Your task to perform on an android device: change text size in settings app Image 0: 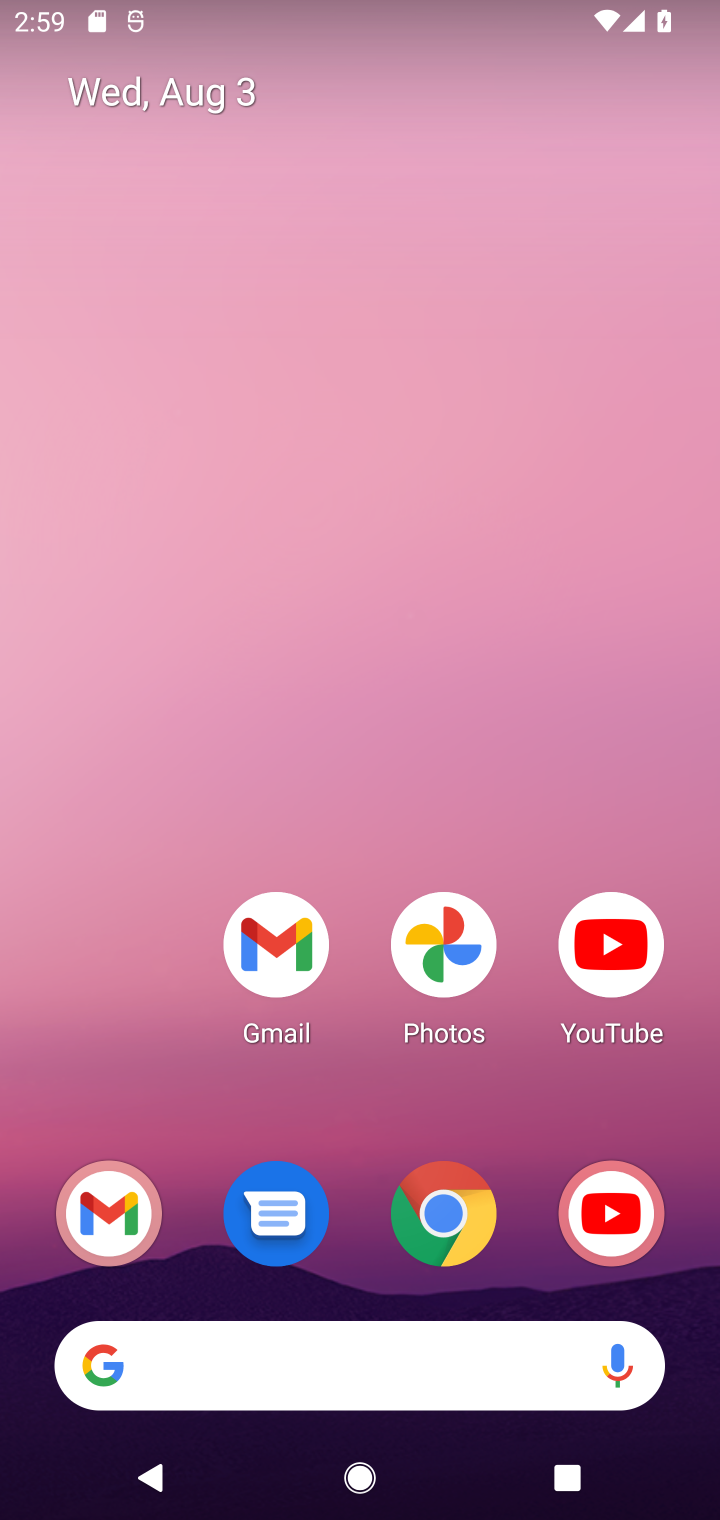
Step 0: drag from (371, 1114) to (384, 301)
Your task to perform on an android device: change text size in settings app Image 1: 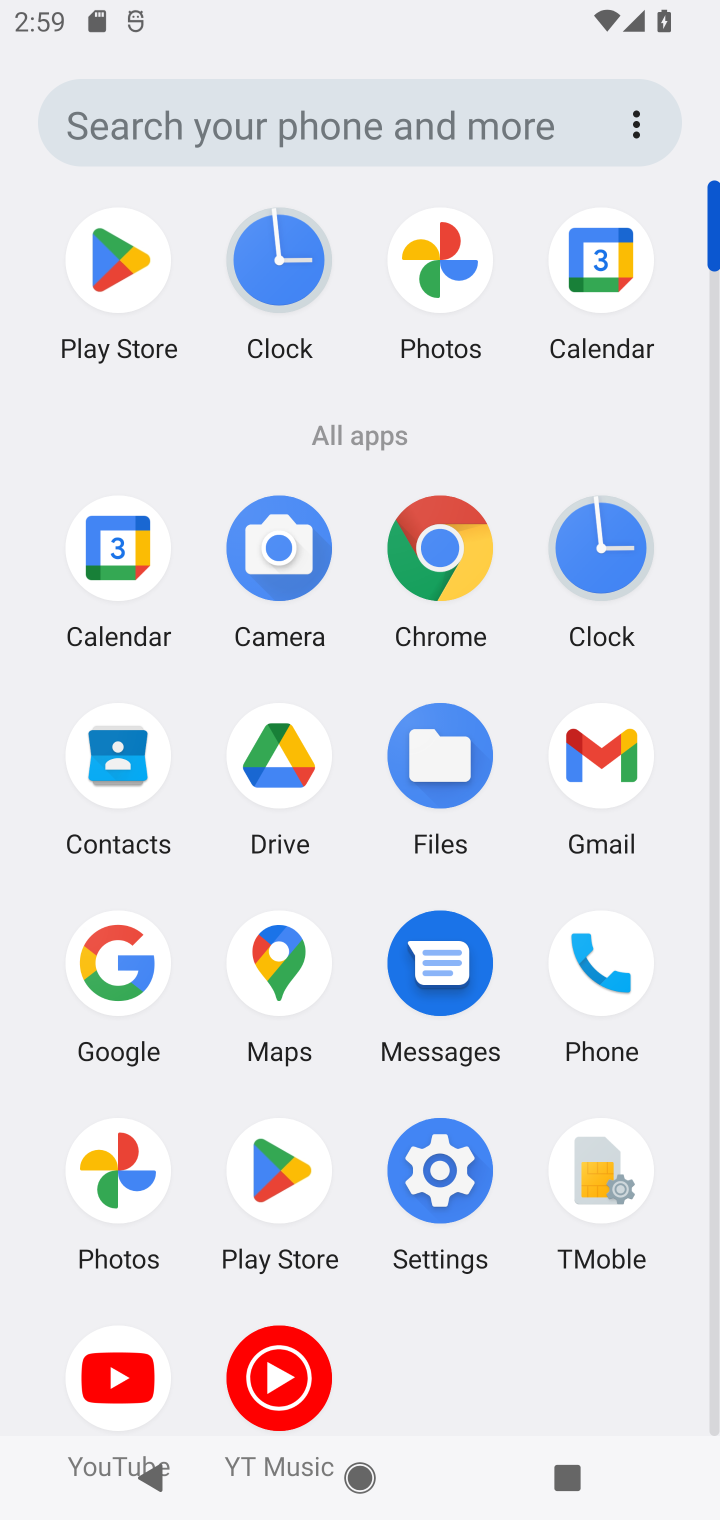
Step 1: click (412, 1166)
Your task to perform on an android device: change text size in settings app Image 2: 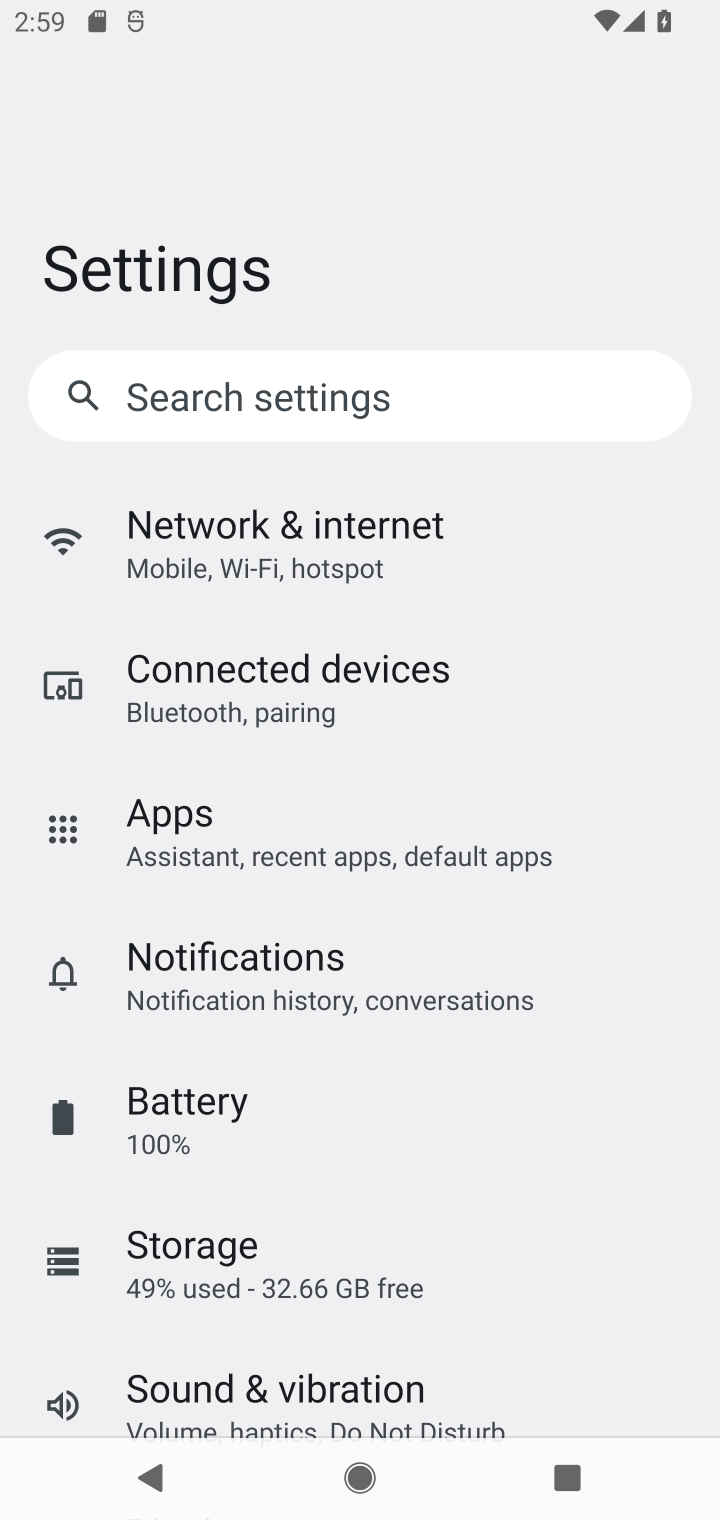
Step 2: drag from (278, 1313) to (400, 314)
Your task to perform on an android device: change text size in settings app Image 3: 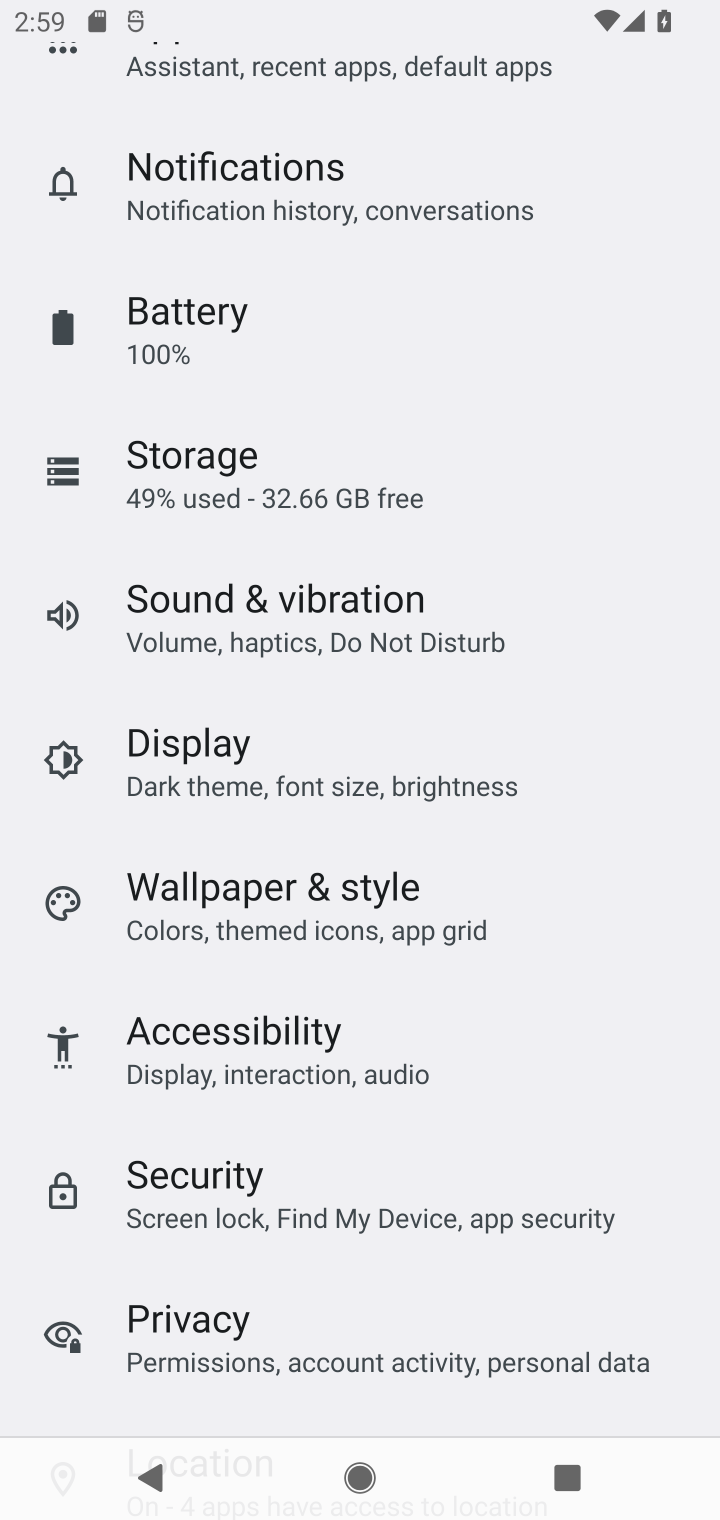
Step 3: click (255, 1063)
Your task to perform on an android device: change text size in settings app Image 4: 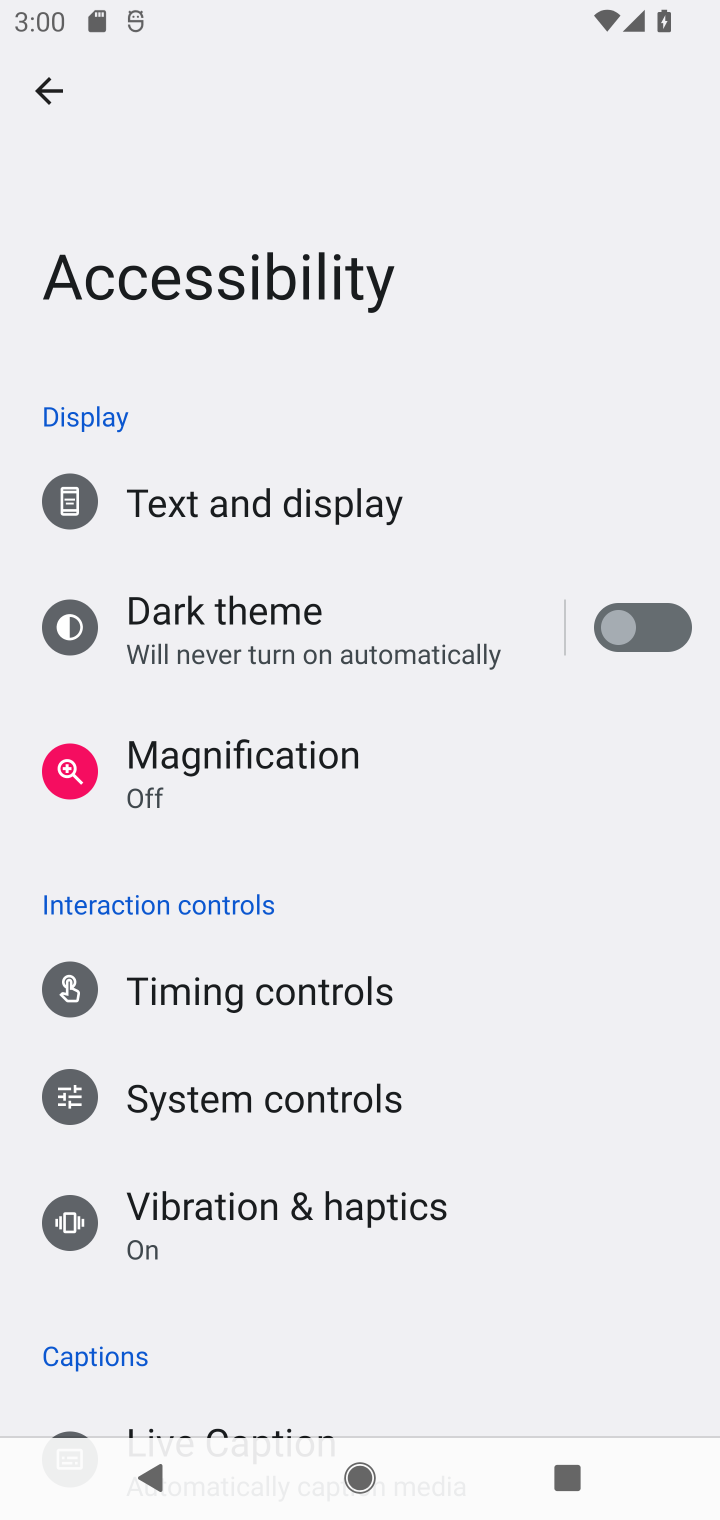
Step 4: click (257, 469)
Your task to perform on an android device: change text size in settings app Image 5: 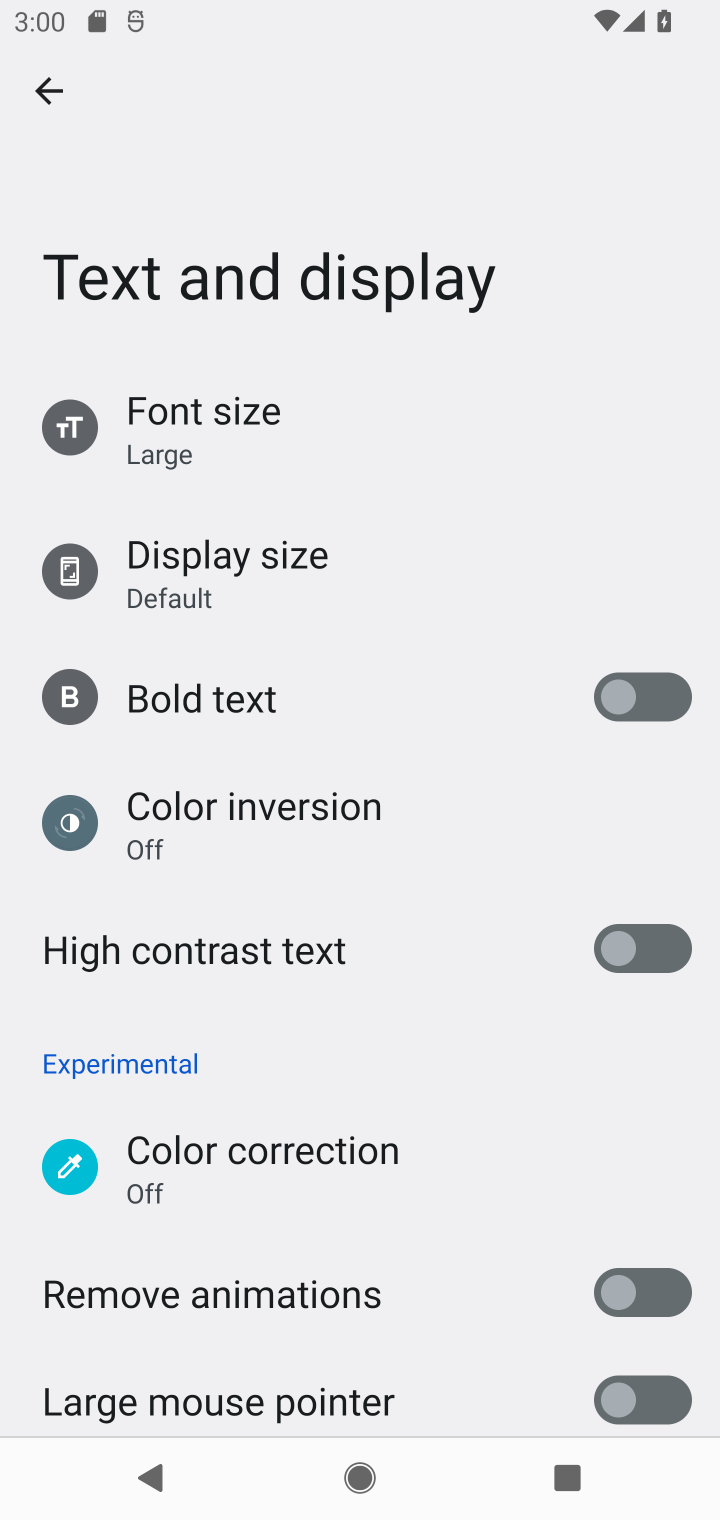
Step 5: click (242, 433)
Your task to perform on an android device: change text size in settings app Image 6: 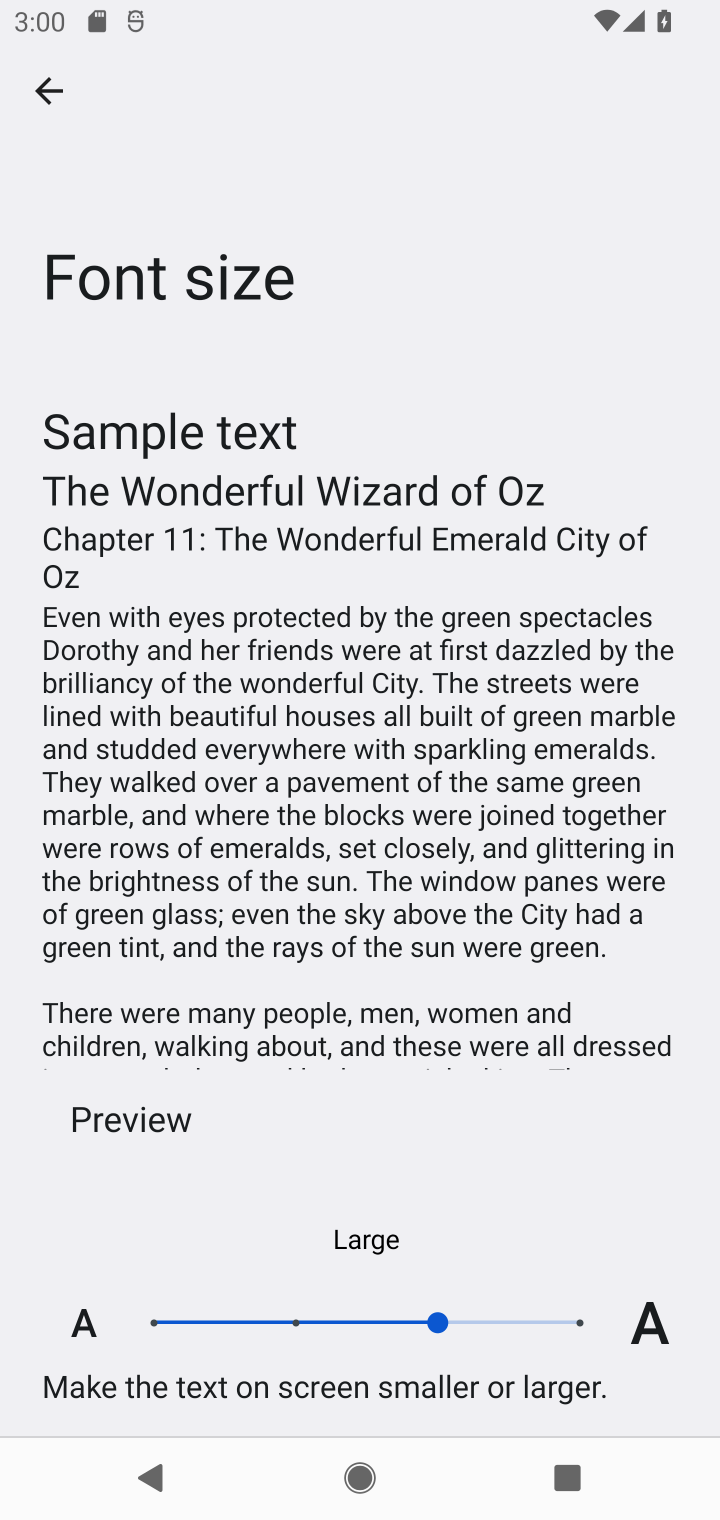
Step 6: click (322, 1311)
Your task to perform on an android device: change text size in settings app Image 7: 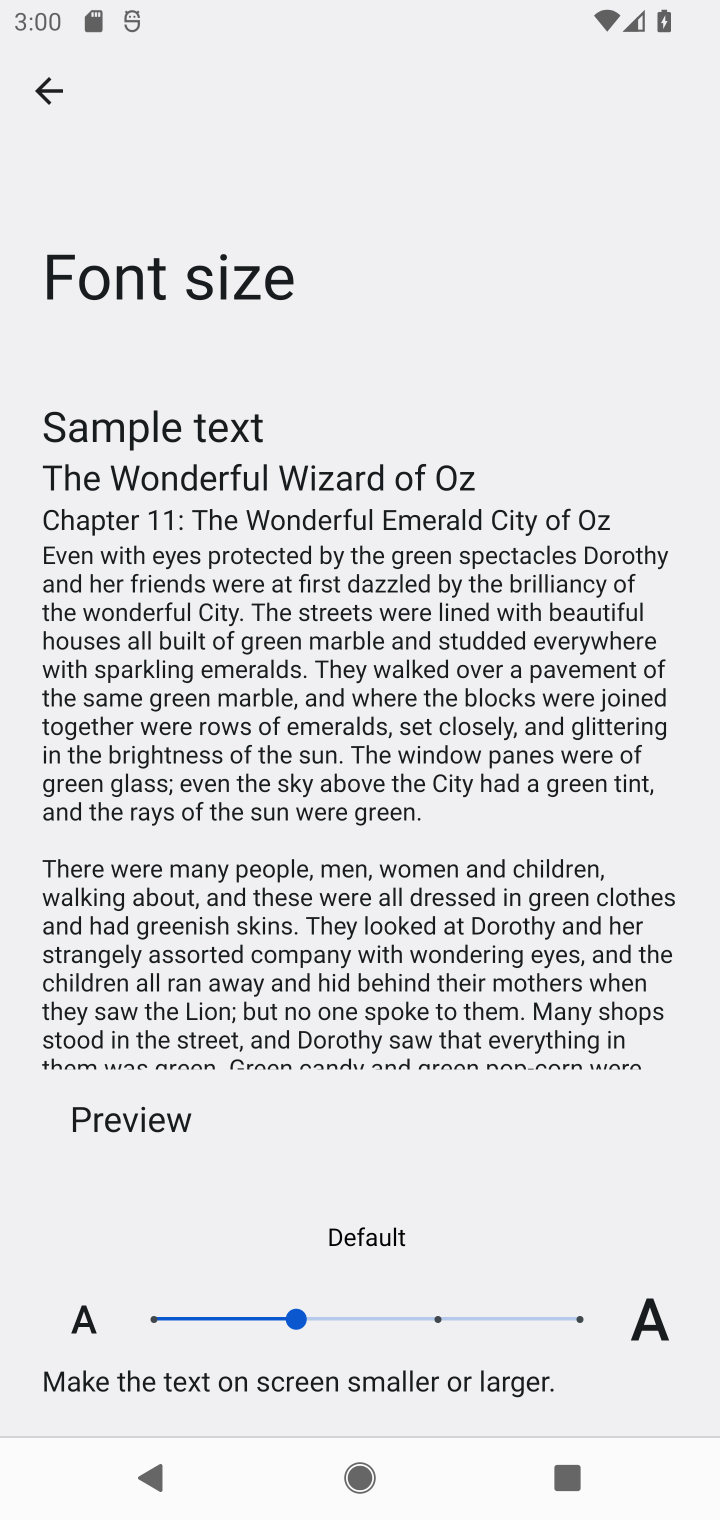
Step 7: task complete